Your task to perform on an android device: turn off airplane mode Image 0: 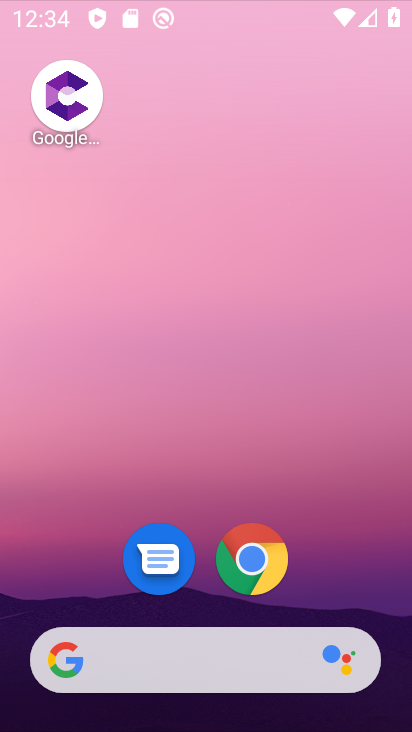
Step 0: click (216, 283)
Your task to perform on an android device: turn off airplane mode Image 1: 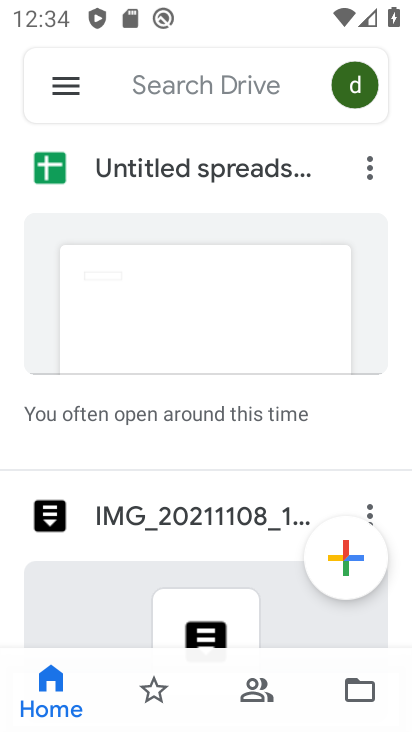
Step 1: press home button
Your task to perform on an android device: turn off airplane mode Image 2: 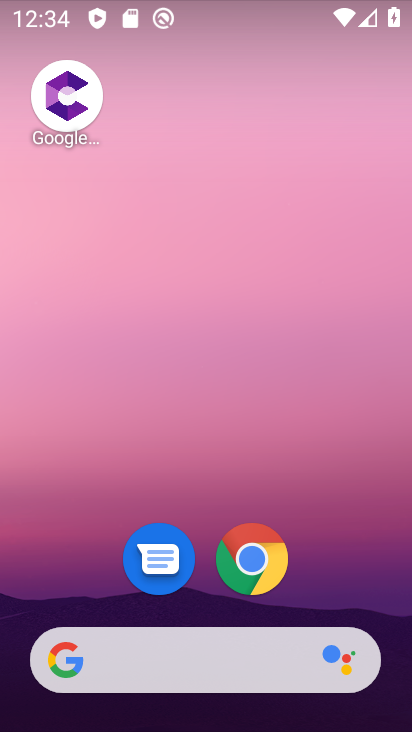
Step 2: drag from (299, 624) to (325, 246)
Your task to perform on an android device: turn off airplane mode Image 3: 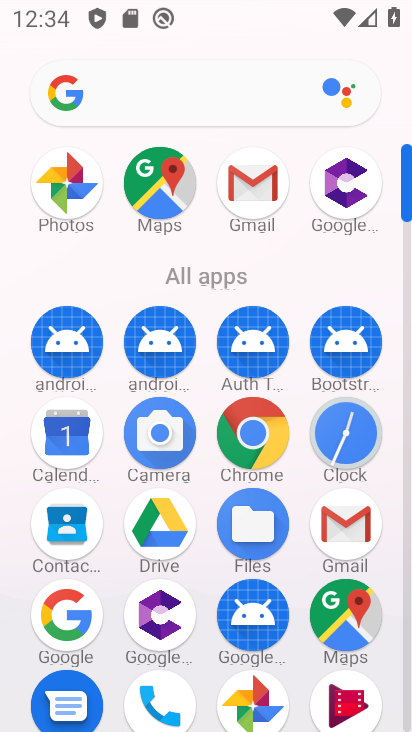
Step 3: drag from (208, 611) to (231, 211)
Your task to perform on an android device: turn off airplane mode Image 4: 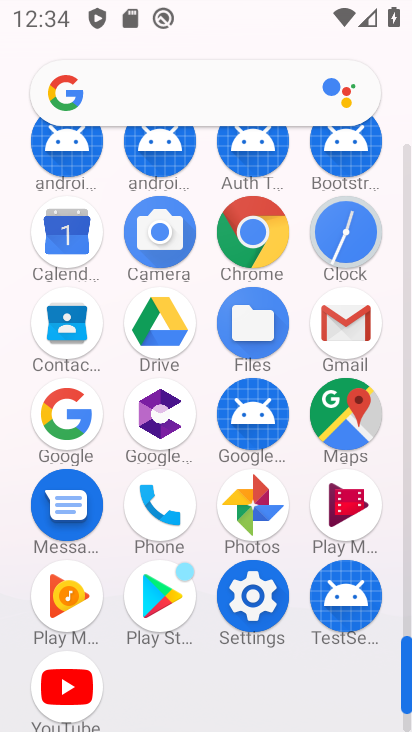
Step 4: click (239, 602)
Your task to perform on an android device: turn off airplane mode Image 5: 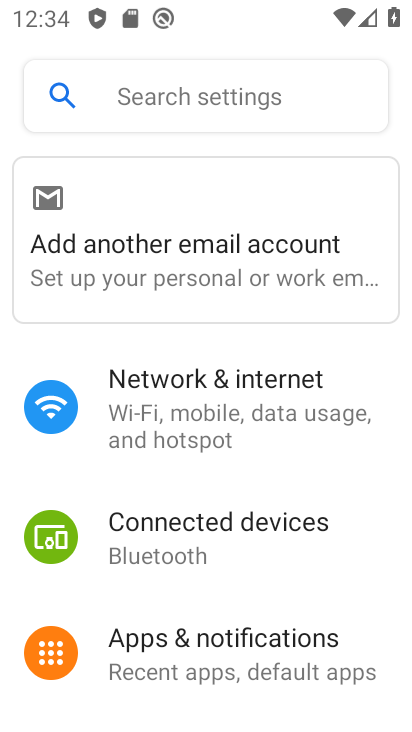
Step 5: click (228, 420)
Your task to perform on an android device: turn off airplane mode Image 6: 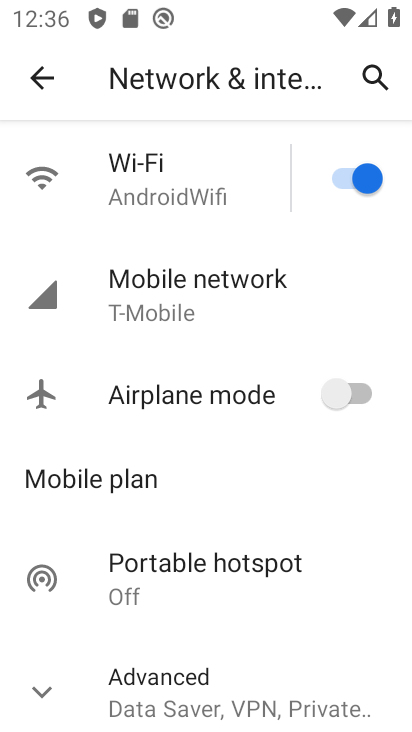
Step 6: task complete